Your task to perform on an android device: Open accessibility settings Image 0: 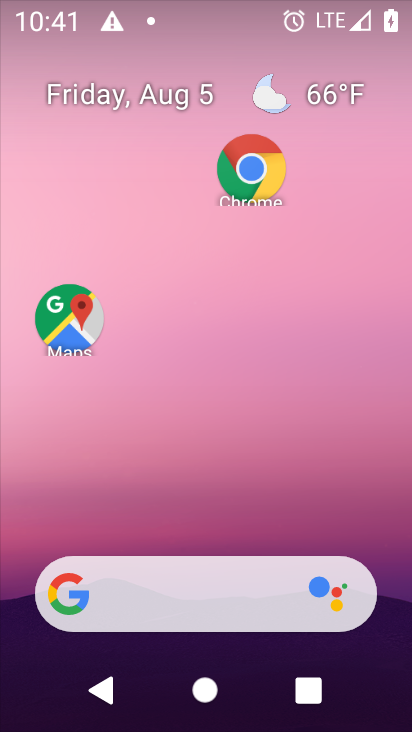
Step 0: drag from (191, 513) to (163, 135)
Your task to perform on an android device: Open accessibility settings Image 1: 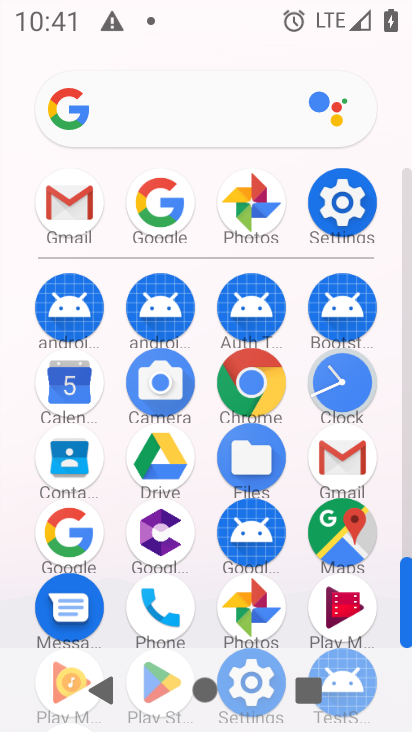
Step 1: click (324, 217)
Your task to perform on an android device: Open accessibility settings Image 2: 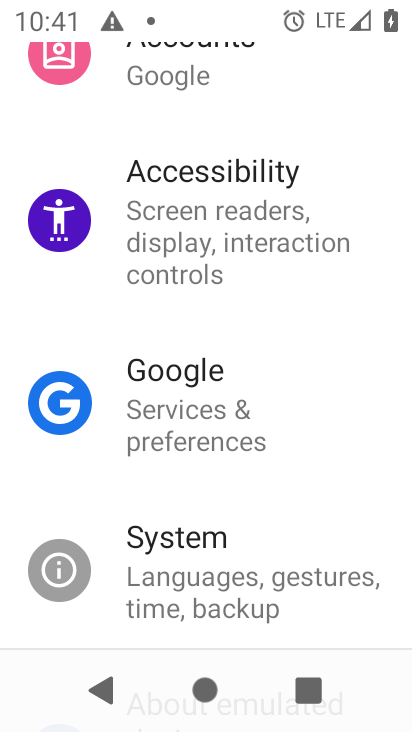
Step 2: click (237, 243)
Your task to perform on an android device: Open accessibility settings Image 3: 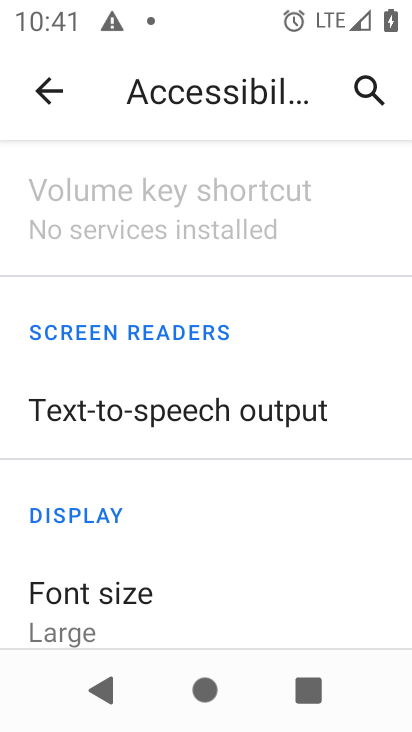
Step 3: task complete